Your task to perform on an android device: What is the recent news? Image 0: 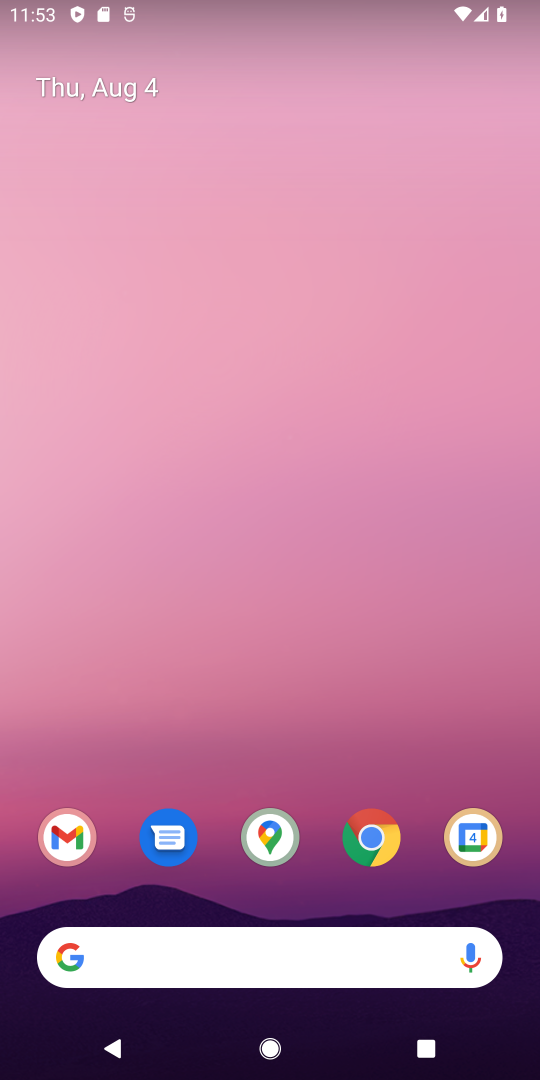
Step 0: click (246, 951)
Your task to perform on an android device: What is the recent news? Image 1: 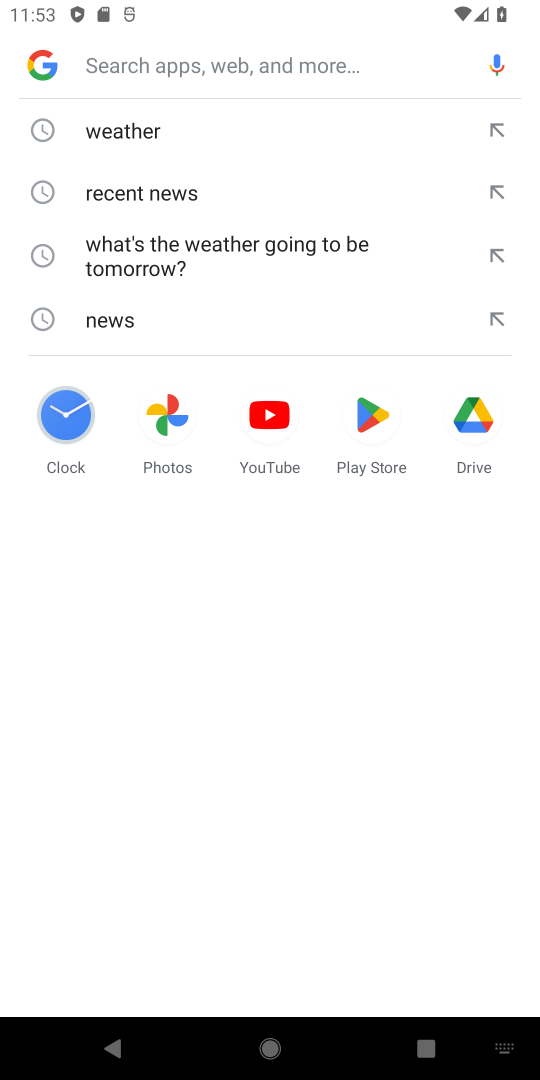
Step 1: type "what is the recent news"
Your task to perform on an android device: What is the recent news? Image 2: 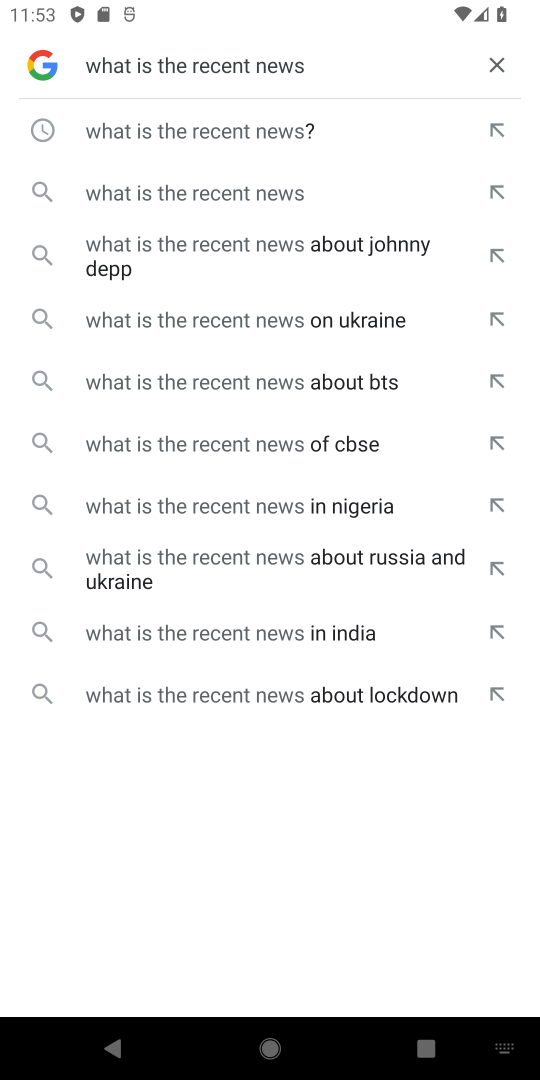
Step 2: click (290, 123)
Your task to perform on an android device: What is the recent news? Image 3: 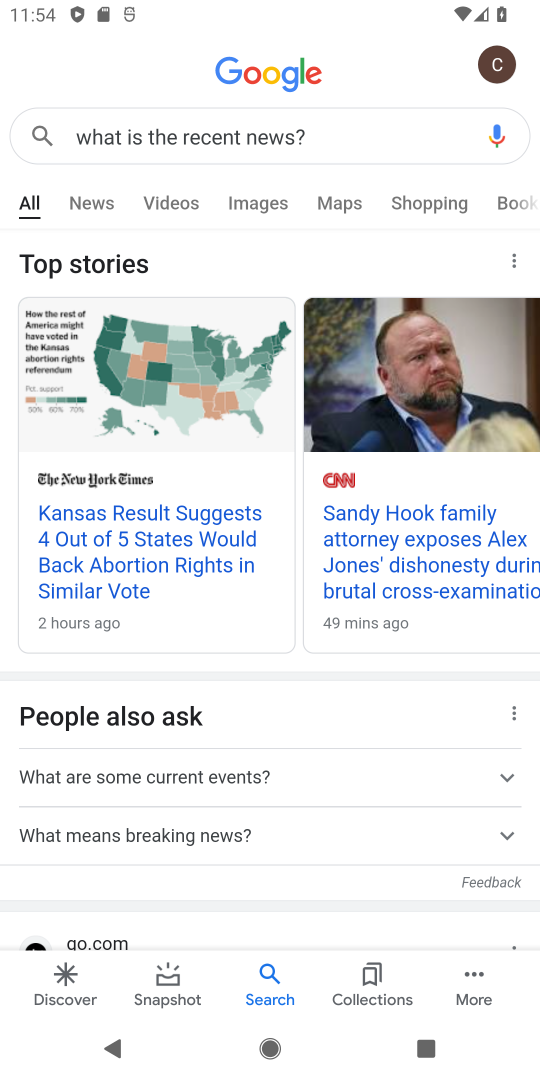
Step 3: click (107, 212)
Your task to perform on an android device: What is the recent news? Image 4: 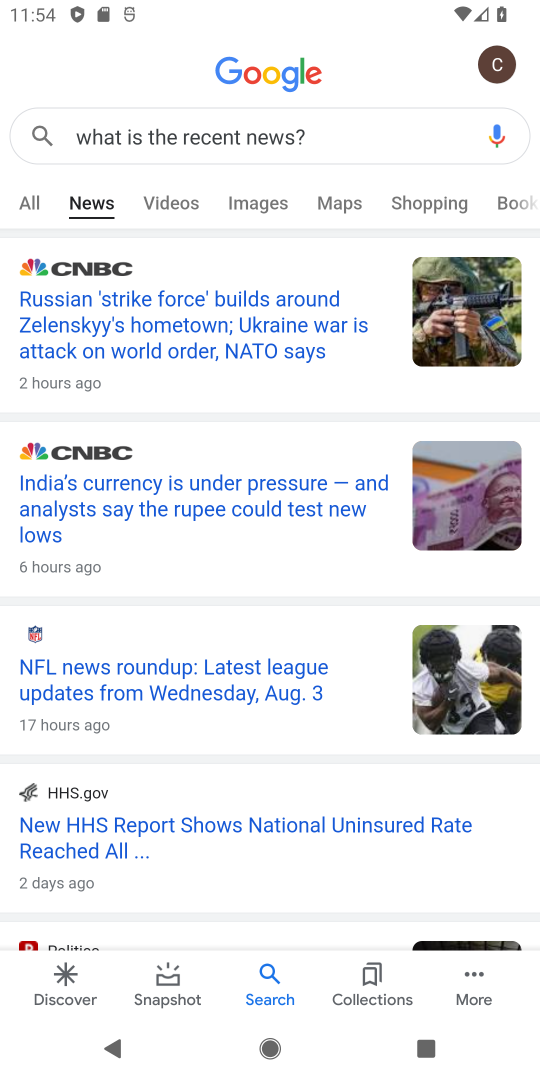
Step 4: task complete